Your task to perform on an android device: Show me productivity apps on the Play Store Image 0: 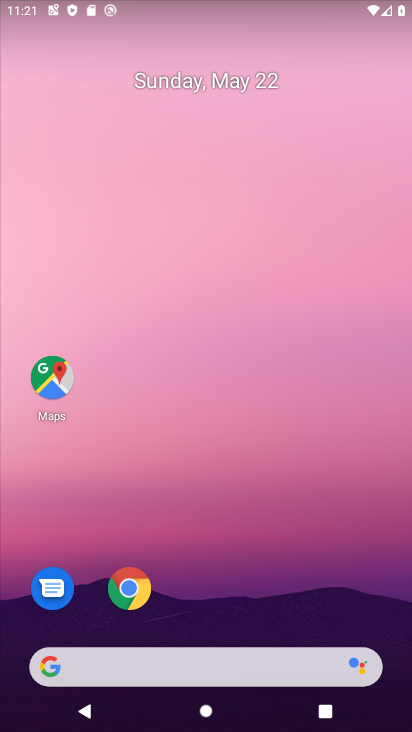
Step 0: drag from (226, 642) to (265, 21)
Your task to perform on an android device: Show me productivity apps on the Play Store Image 1: 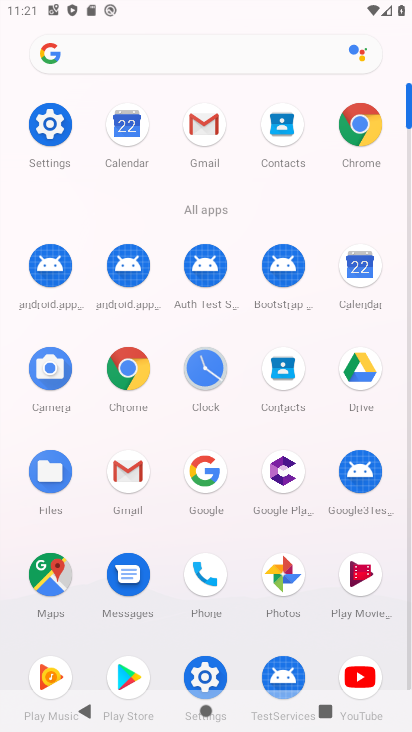
Step 1: click (124, 686)
Your task to perform on an android device: Show me productivity apps on the Play Store Image 2: 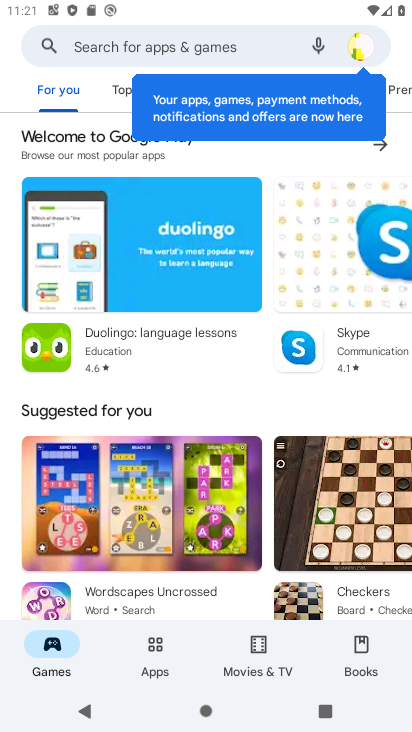
Step 2: click (153, 662)
Your task to perform on an android device: Show me productivity apps on the Play Store Image 3: 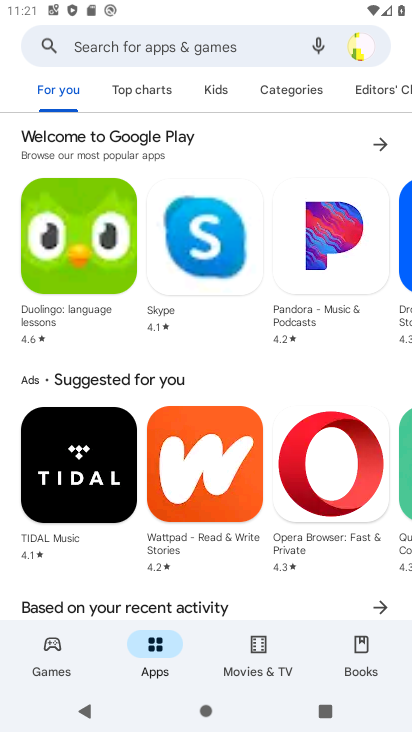
Step 3: task complete